Your task to perform on an android device: turn off location Image 0: 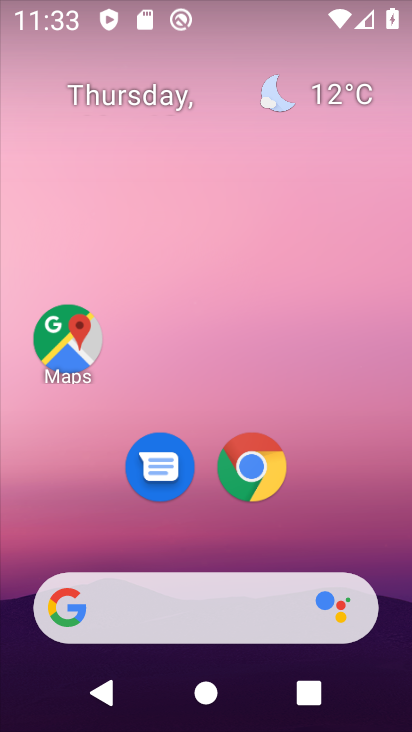
Step 0: drag from (361, 498) to (322, 109)
Your task to perform on an android device: turn off location Image 1: 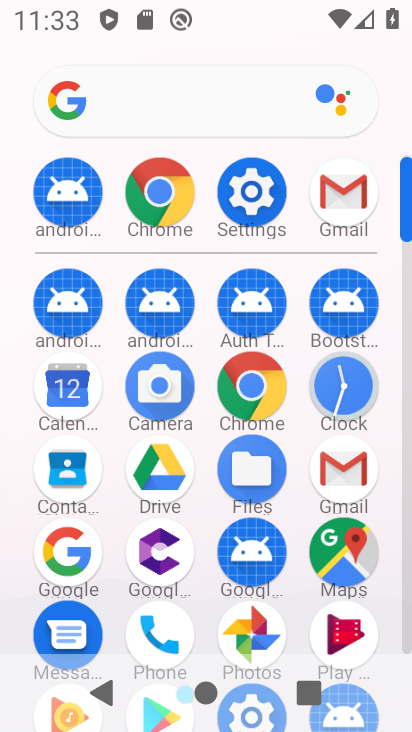
Step 1: click (244, 192)
Your task to perform on an android device: turn off location Image 2: 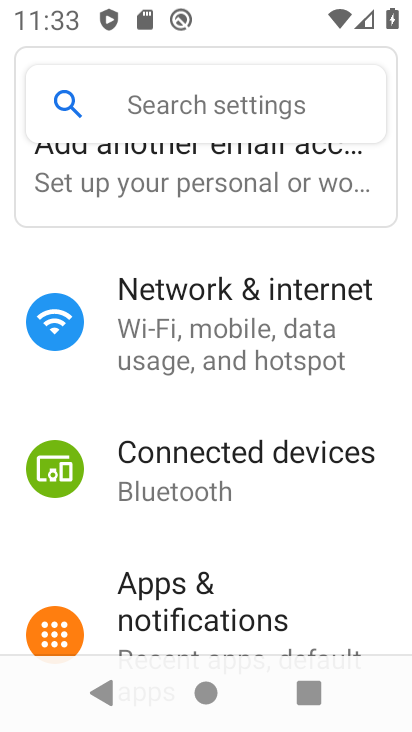
Step 2: drag from (176, 544) to (259, 207)
Your task to perform on an android device: turn off location Image 3: 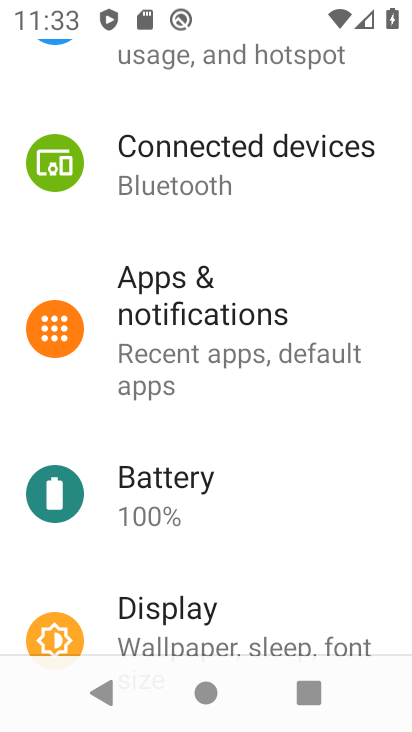
Step 3: drag from (230, 541) to (242, 223)
Your task to perform on an android device: turn off location Image 4: 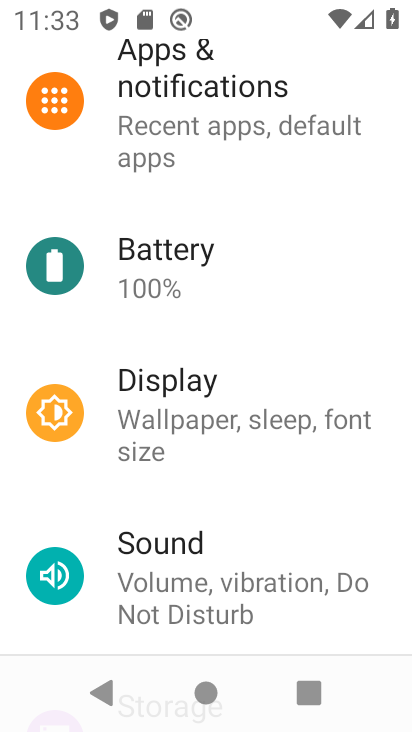
Step 4: drag from (235, 545) to (275, 142)
Your task to perform on an android device: turn off location Image 5: 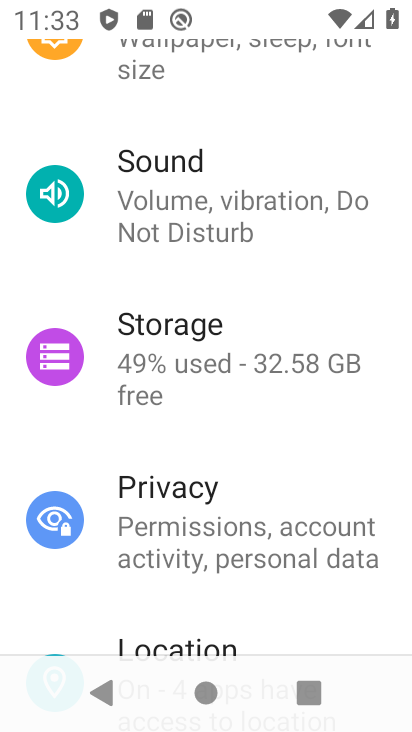
Step 5: drag from (252, 531) to (290, 157)
Your task to perform on an android device: turn off location Image 6: 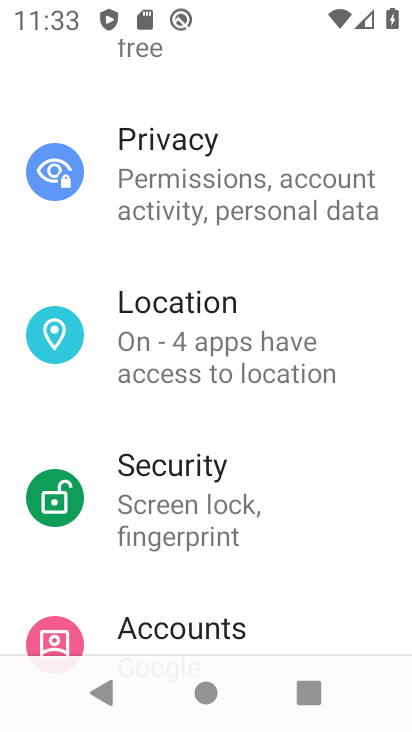
Step 6: click (252, 327)
Your task to perform on an android device: turn off location Image 7: 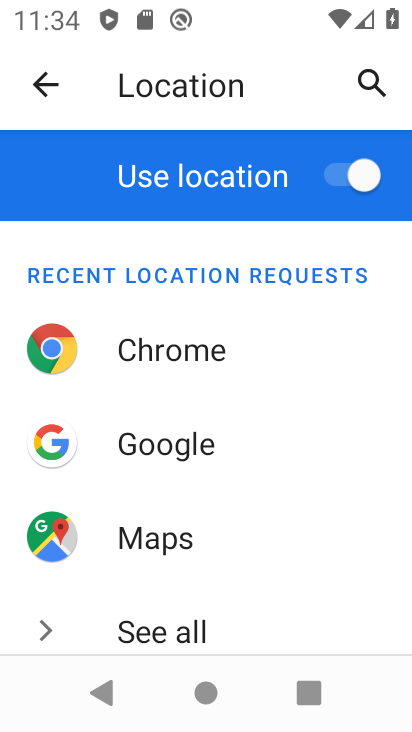
Step 7: click (326, 181)
Your task to perform on an android device: turn off location Image 8: 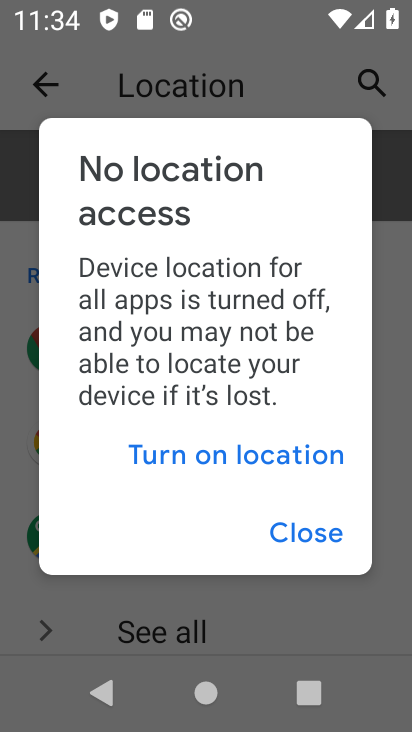
Step 8: task complete